Your task to perform on an android device: see creations saved in the google photos Image 0: 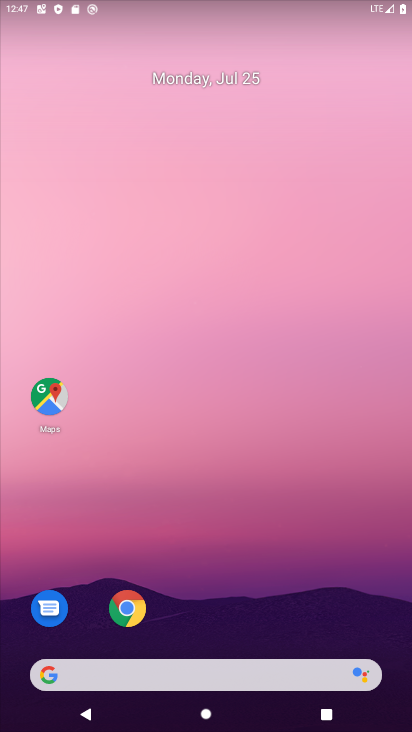
Step 0: drag from (257, 653) to (238, 21)
Your task to perform on an android device: see creations saved in the google photos Image 1: 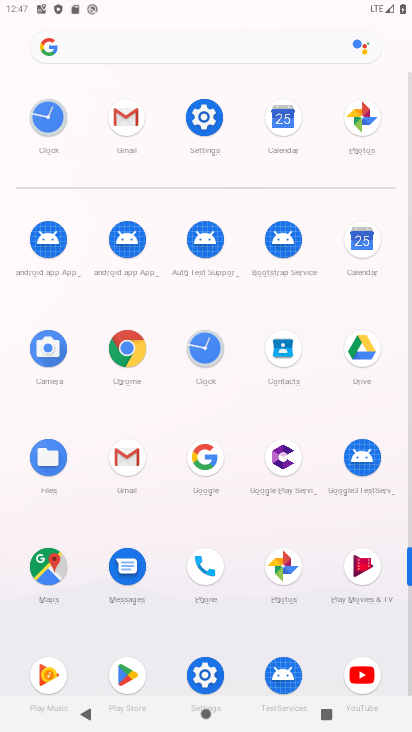
Step 1: click (362, 118)
Your task to perform on an android device: see creations saved in the google photos Image 2: 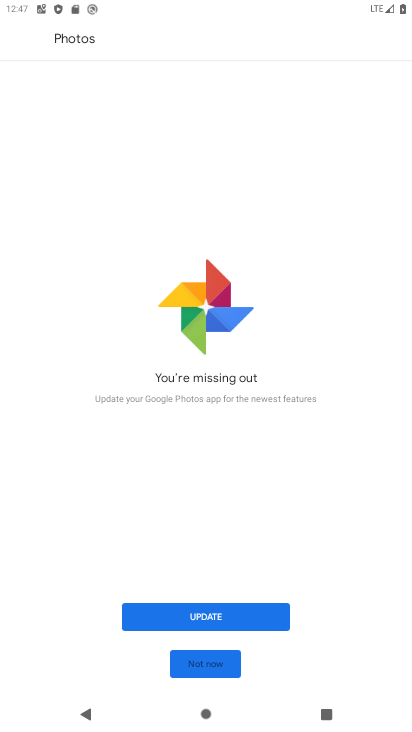
Step 2: click (192, 666)
Your task to perform on an android device: see creations saved in the google photos Image 3: 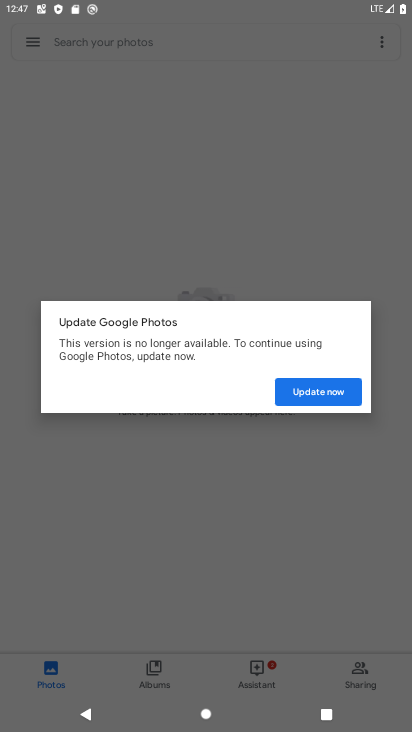
Step 3: click (326, 378)
Your task to perform on an android device: see creations saved in the google photos Image 4: 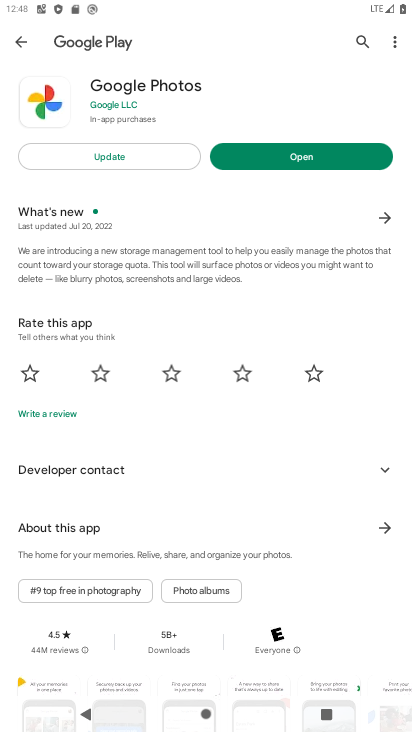
Step 4: click (275, 151)
Your task to perform on an android device: see creations saved in the google photos Image 5: 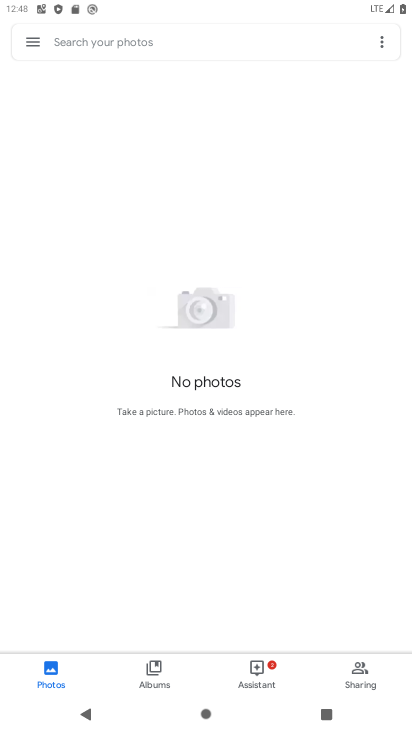
Step 5: click (80, 43)
Your task to perform on an android device: see creations saved in the google photos Image 6: 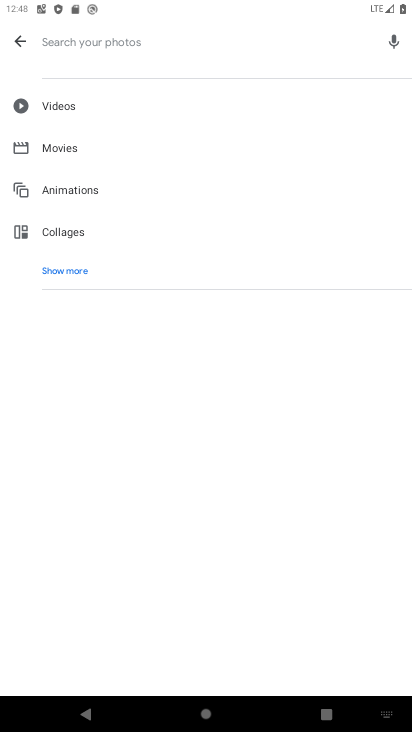
Step 6: click (47, 269)
Your task to perform on an android device: see creations saved in the google photos Image 7: 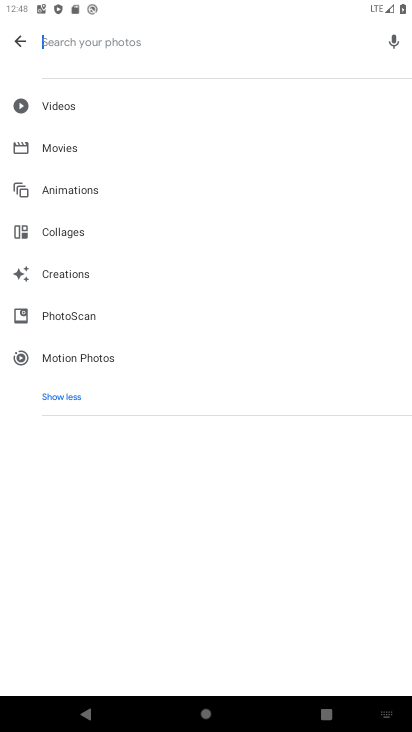
Step 7: click (53, 278)
Your task to perform on an android device: see creations saved in the google photos Image 8: 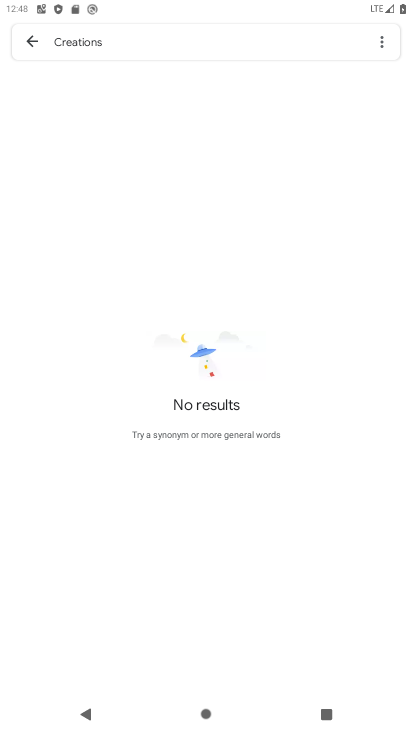
Step 8: task complete